Your task to perform on an android device: Go to Reddit.com Image 0: 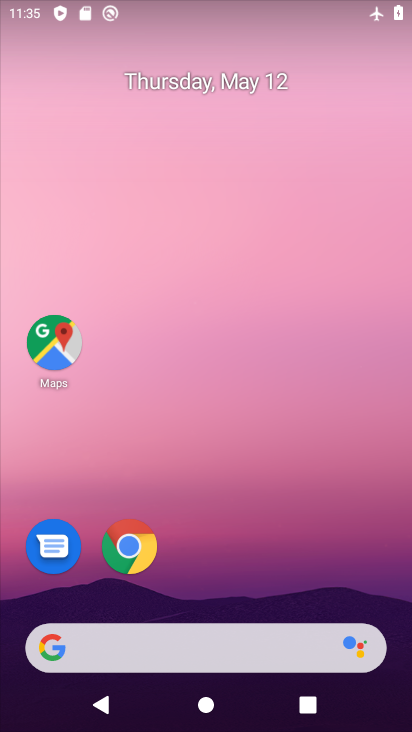
Step 0: click (125, 548)
Your task to perform on an android device: Go to Reddit.com Image 1: 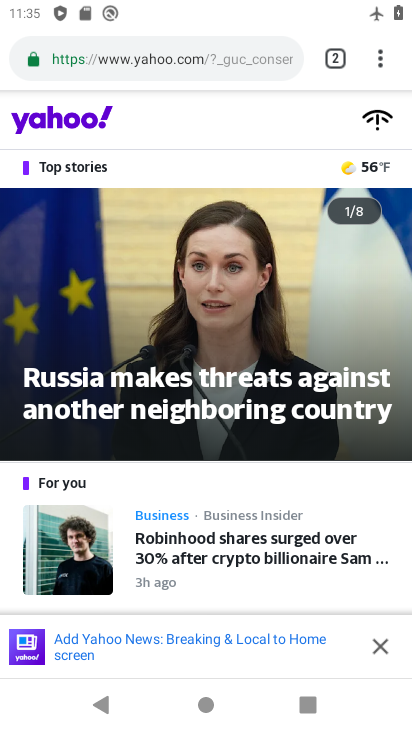
Step 1: click (380, 62)
Your task to perform on an android device: Go to Reddit.com Image 2: 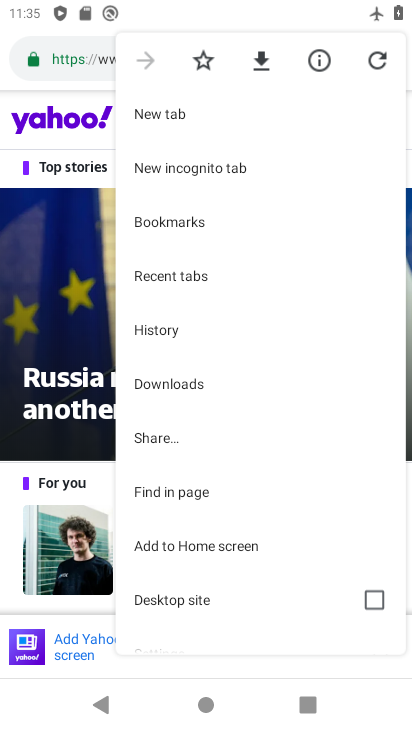
Step 2: click (172, 110)
Your task to perform on an android device: Go to Reddit.com Image 3: 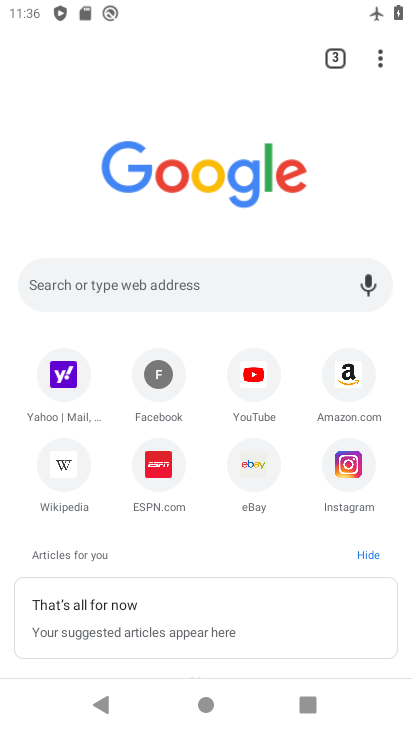
Step 3: click (210, 274)
Your task to perform on an android device: Go to Reddit.com Image 4: 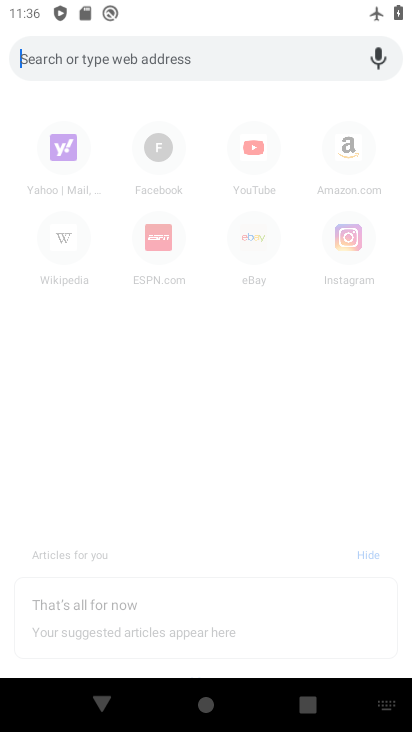
Step 4: type "Reddit.com"
Your task to perform on an android device: Go to Reddit.com Image 5: 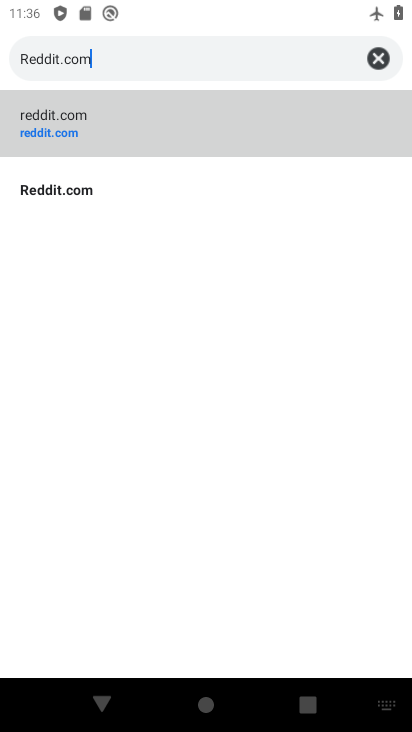
Step 5: click (44, 120)
Your task to perform on an android device: Go to Reddit.com Image 6: 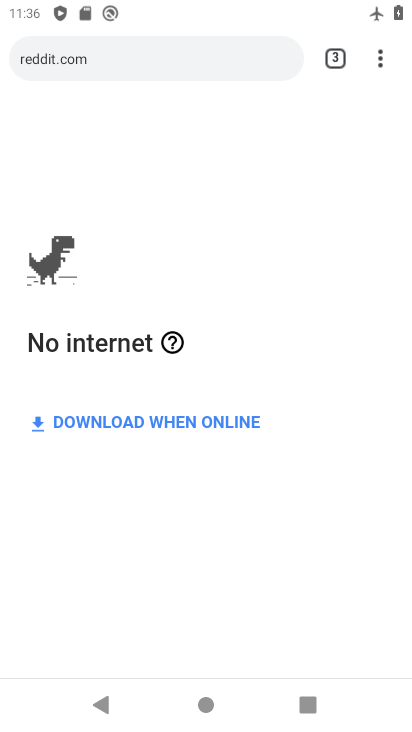
Step 6: task complete